Your task to perform on an android device: Add "apple airpods pro" to the cart on newegg, then select checkout. Image 0: 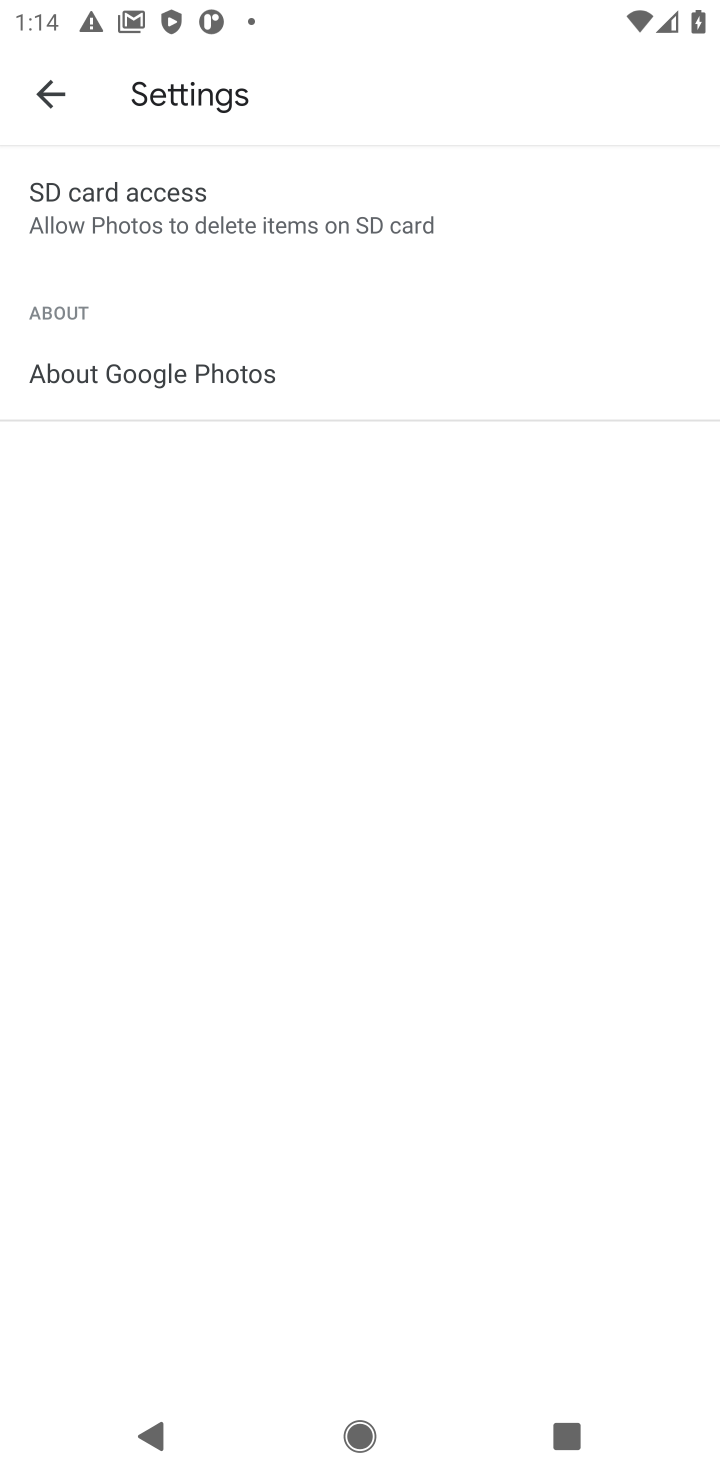
Step 0: press home button
Your task to perform on an android device: Add "apple airpods pro" to the cart on newegg, then select checkout. Image 1: 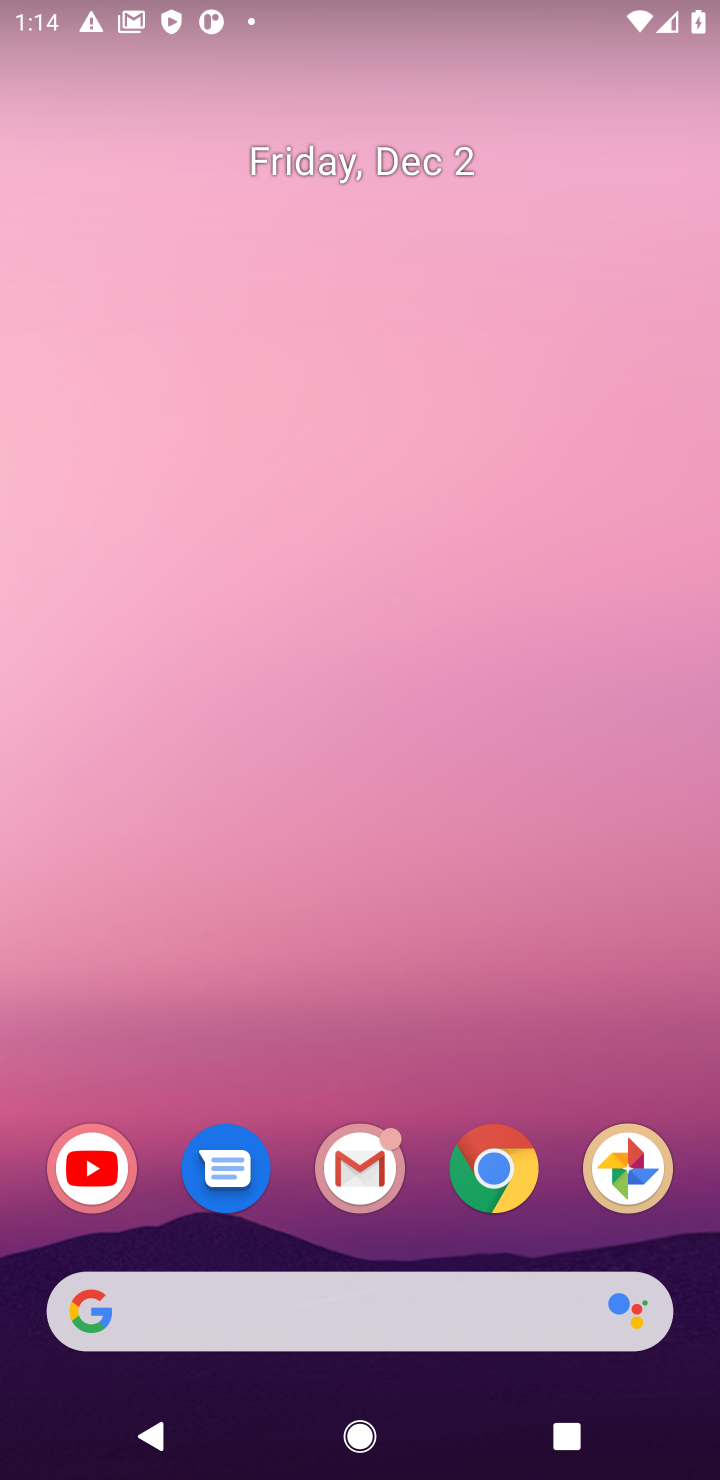
Step 1: click (498, 1182)
Your task to perform on an android device: Add "apple airpods pro" to the cart on newegg, then select checkout. Image 2: 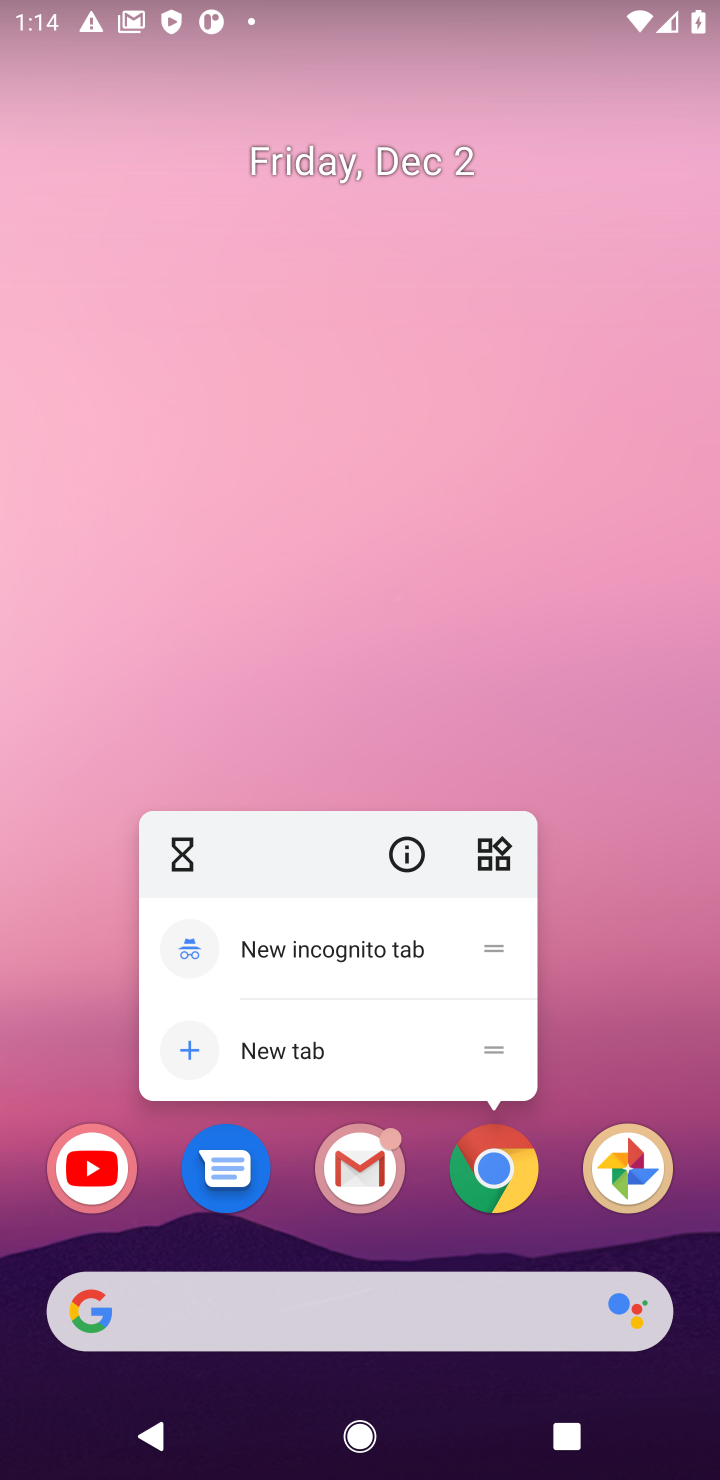
Step 2: click (498, 1182)
Your task to perform on an android device: Add "apple airpods pro" to the cart on newegg, then select checkout. Image 3: 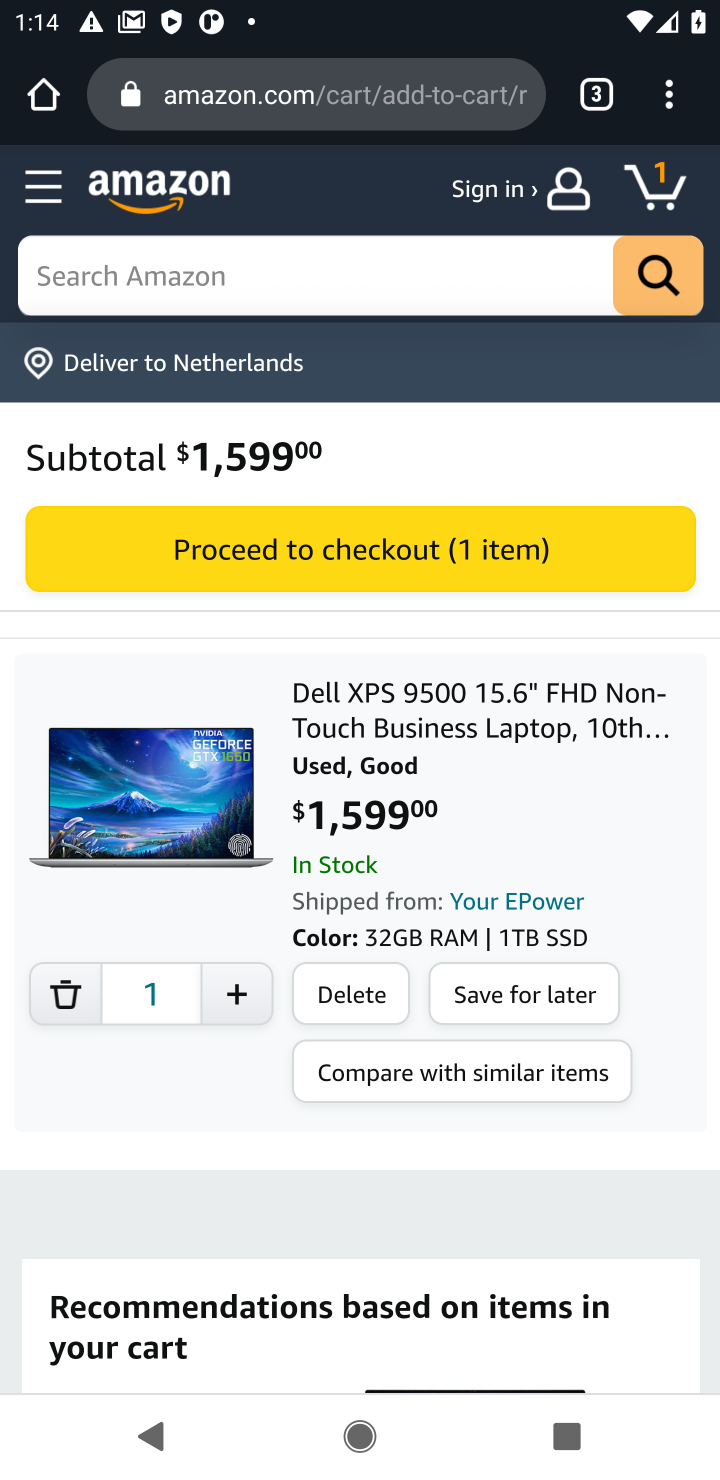
Step 3: click (312, 104)
Your task to perform on an android device: Add "apple airpods pro" to the cart on newegg, then select checkout. Image 4: 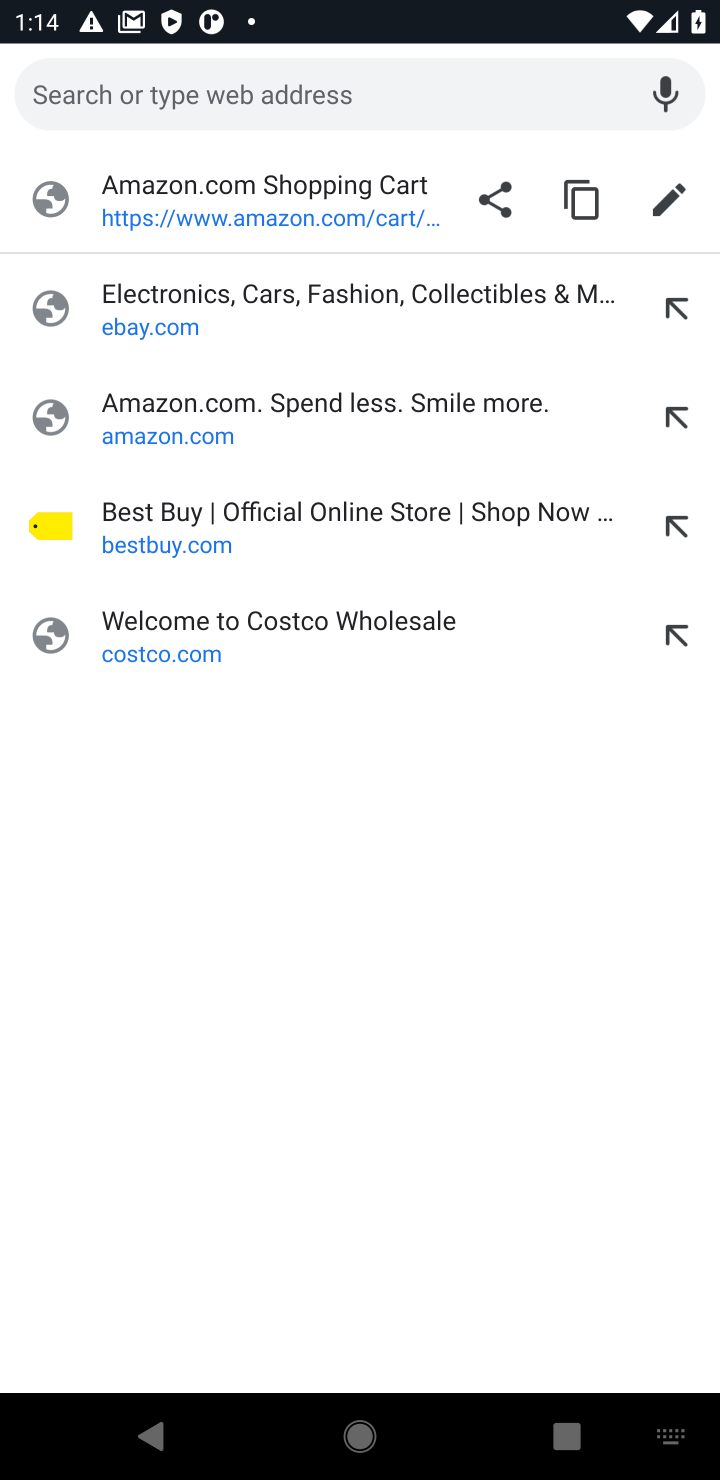
Step 4: type "newegg.com"
Your task to perform on an android device: Add "apple airpods pro" to the cart on newegg, then select checkout. Image 5: 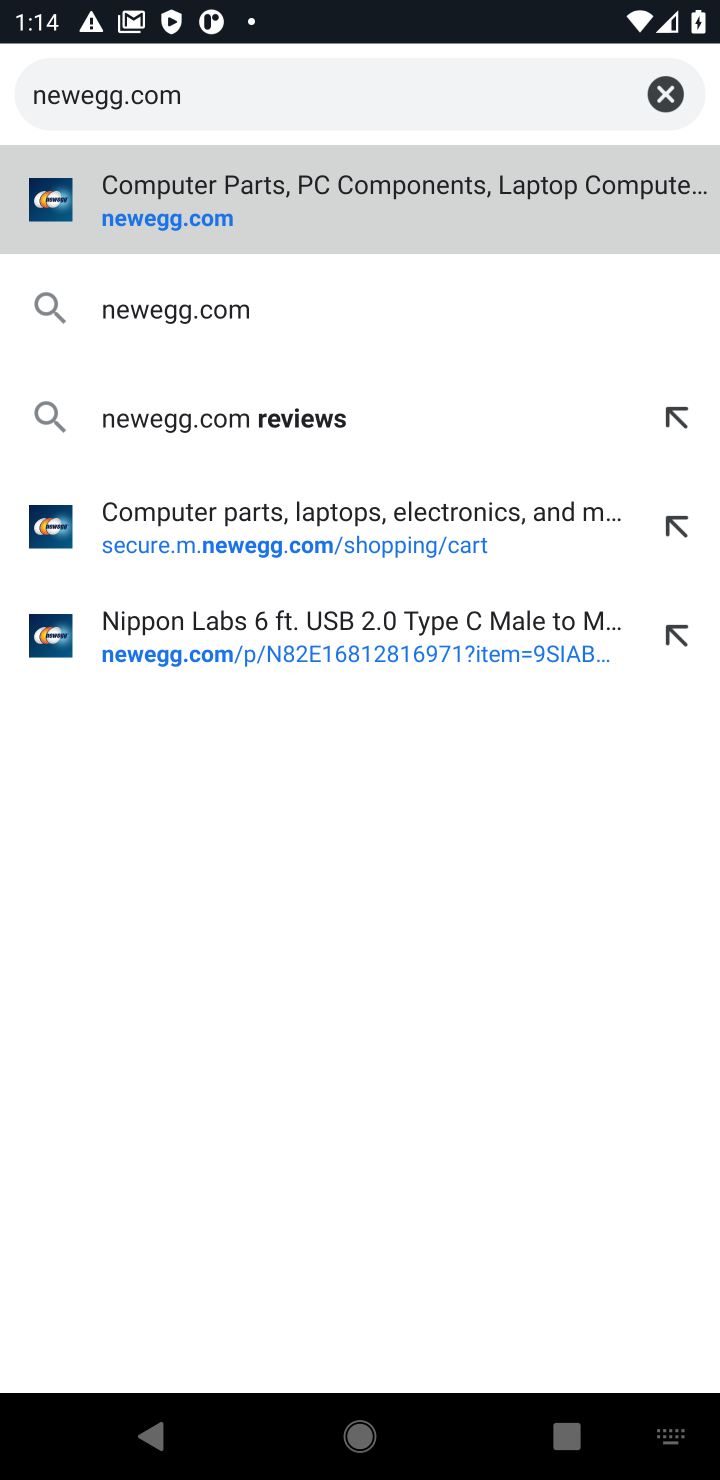
Step 5: click (196, 210)
Your task to perform on an android device: Add "apple airpods pro" to the cart on newegg, then select checkout. Image 6: 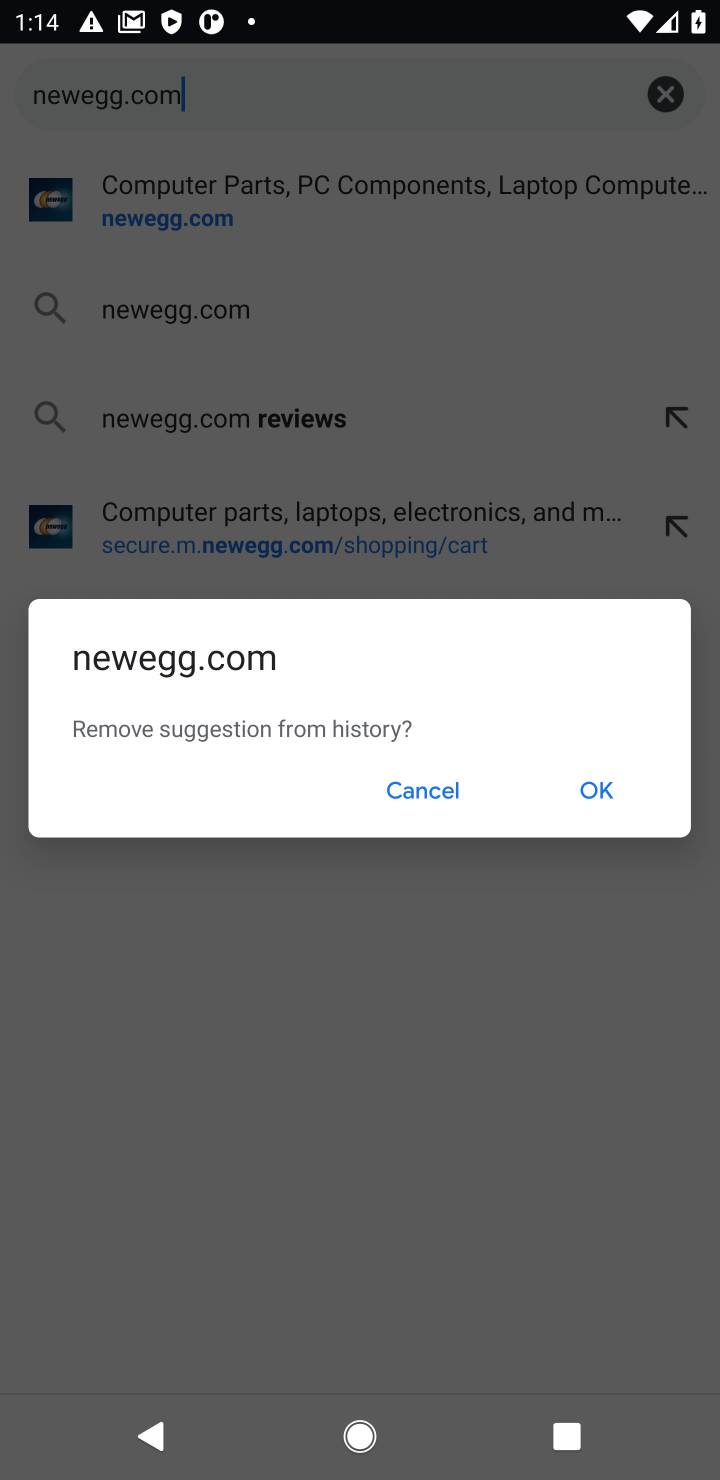
Step 6: click (409, 791)
Your task to perform on an android device: Add "apple airpods pro" to the cart on newegg, then select checkout. Image 7: 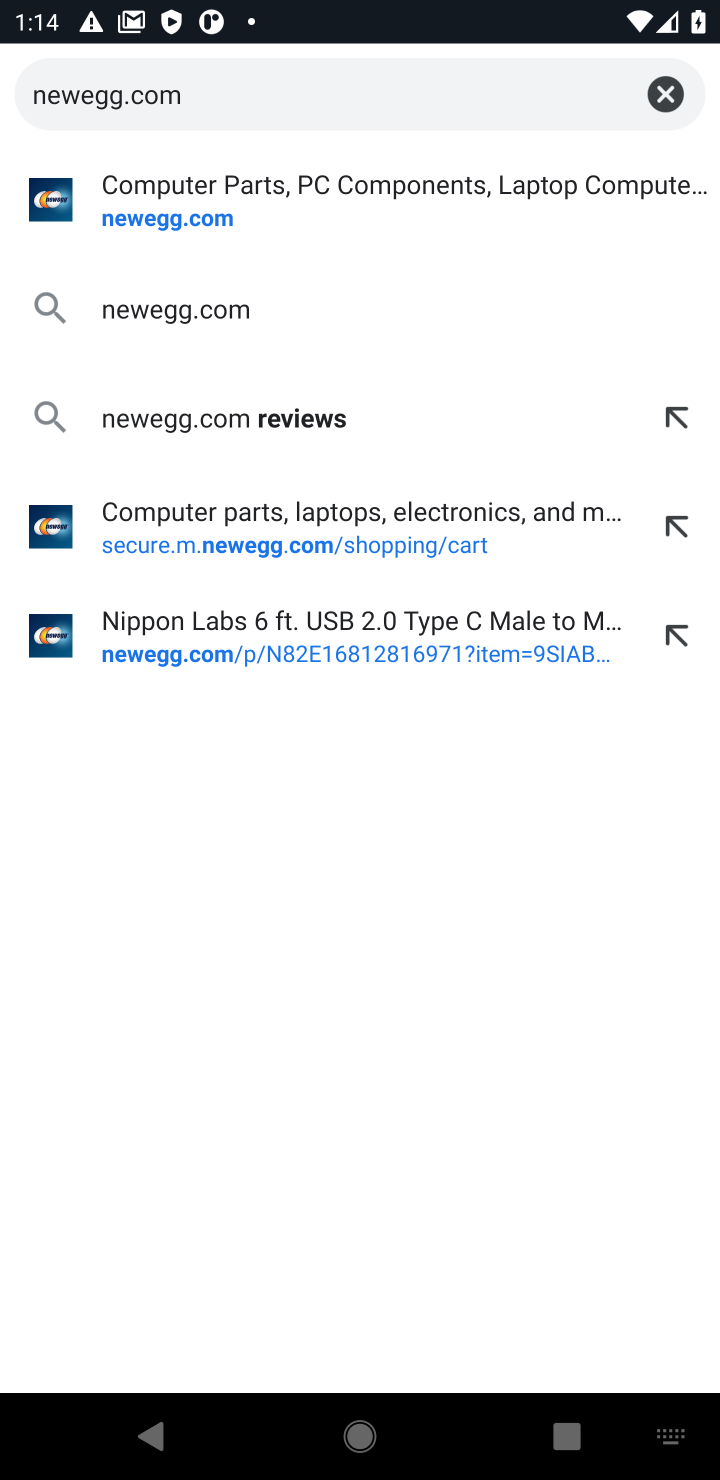
Step 7: click (171, 224)
Your task to perform on an android device: Add "apple airpods pro" to the cart on newegg, then select checkout. Image 8: 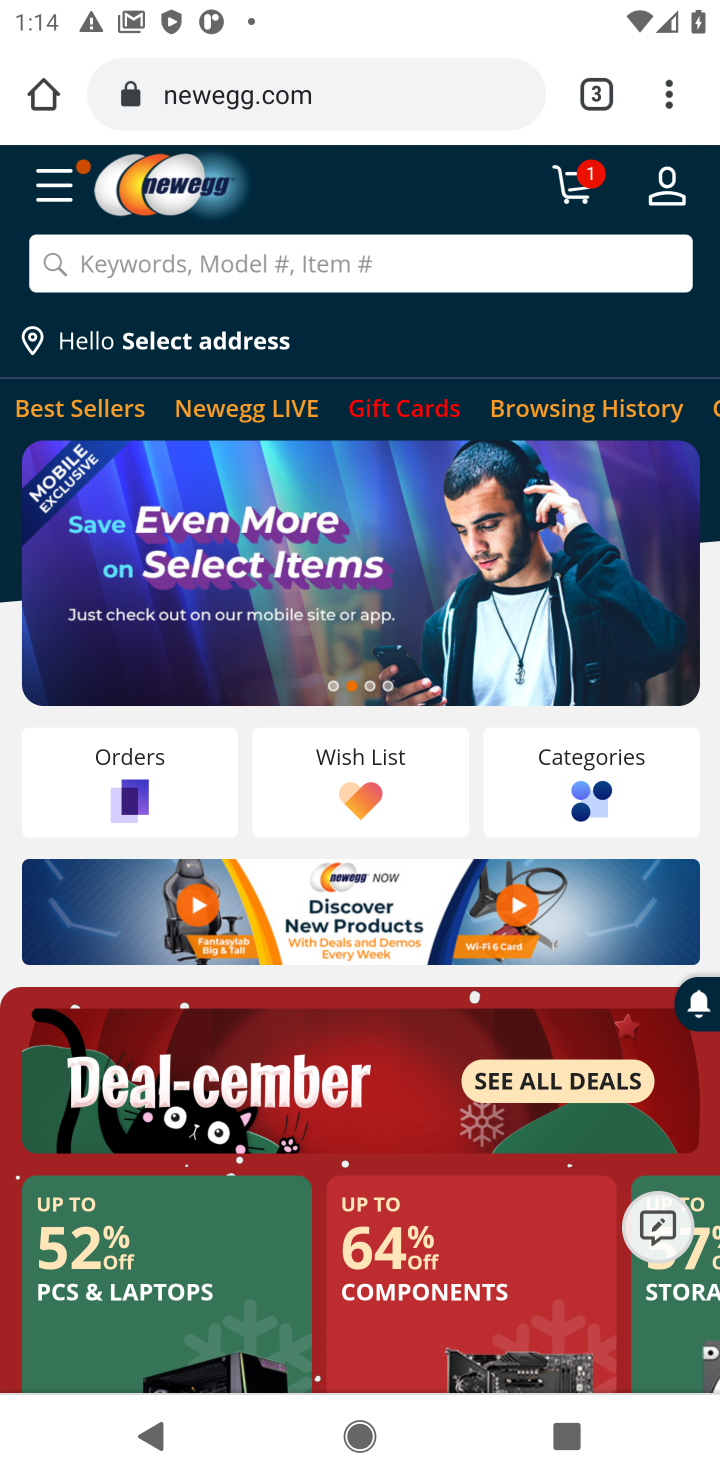
Step 8: click (257, 249)
Your task to perform on an android device: Add "apple airpods pro" to the cart on newegg, then select checkout. Image 9: 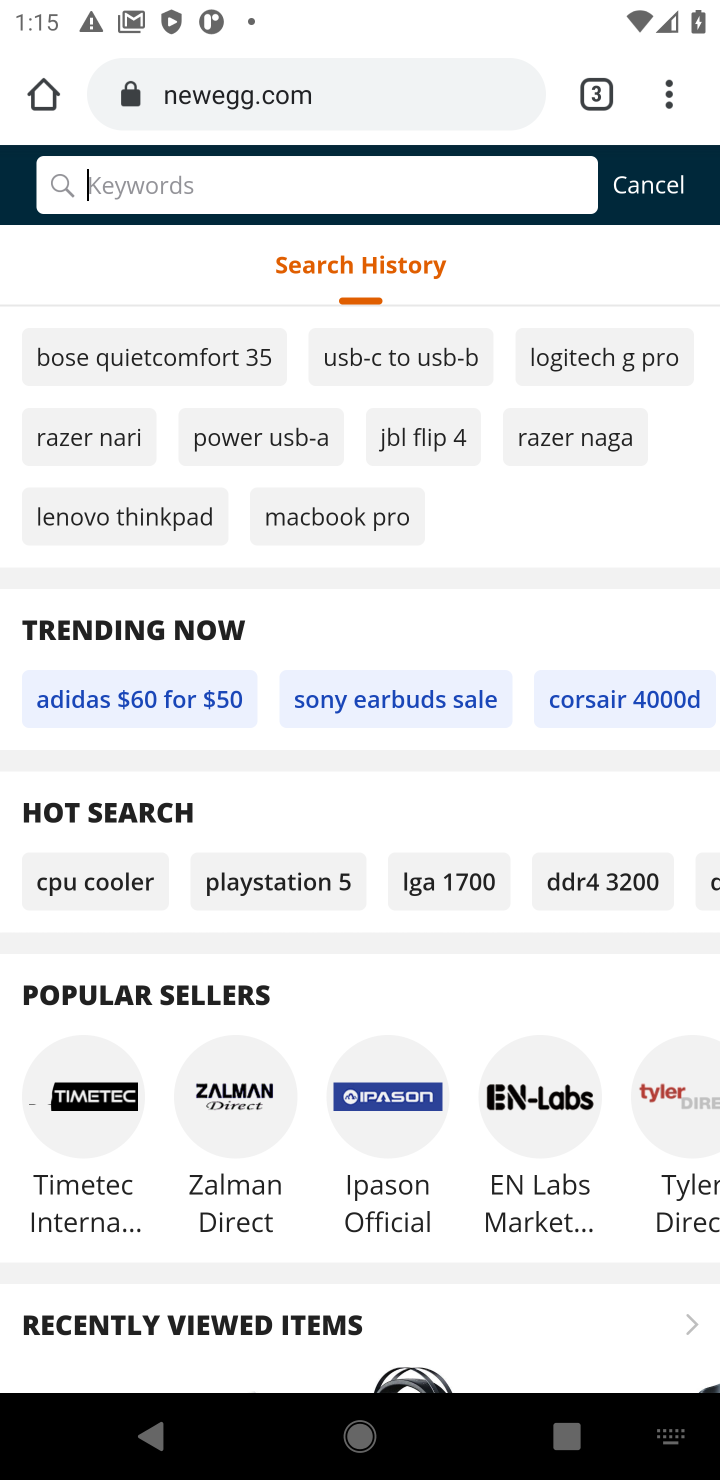
Step 9: type "apple airpods pro"
Your task to perform on an android device: Add "apple airpods pro" to the cart on newegg, then select checkout. Image 10: 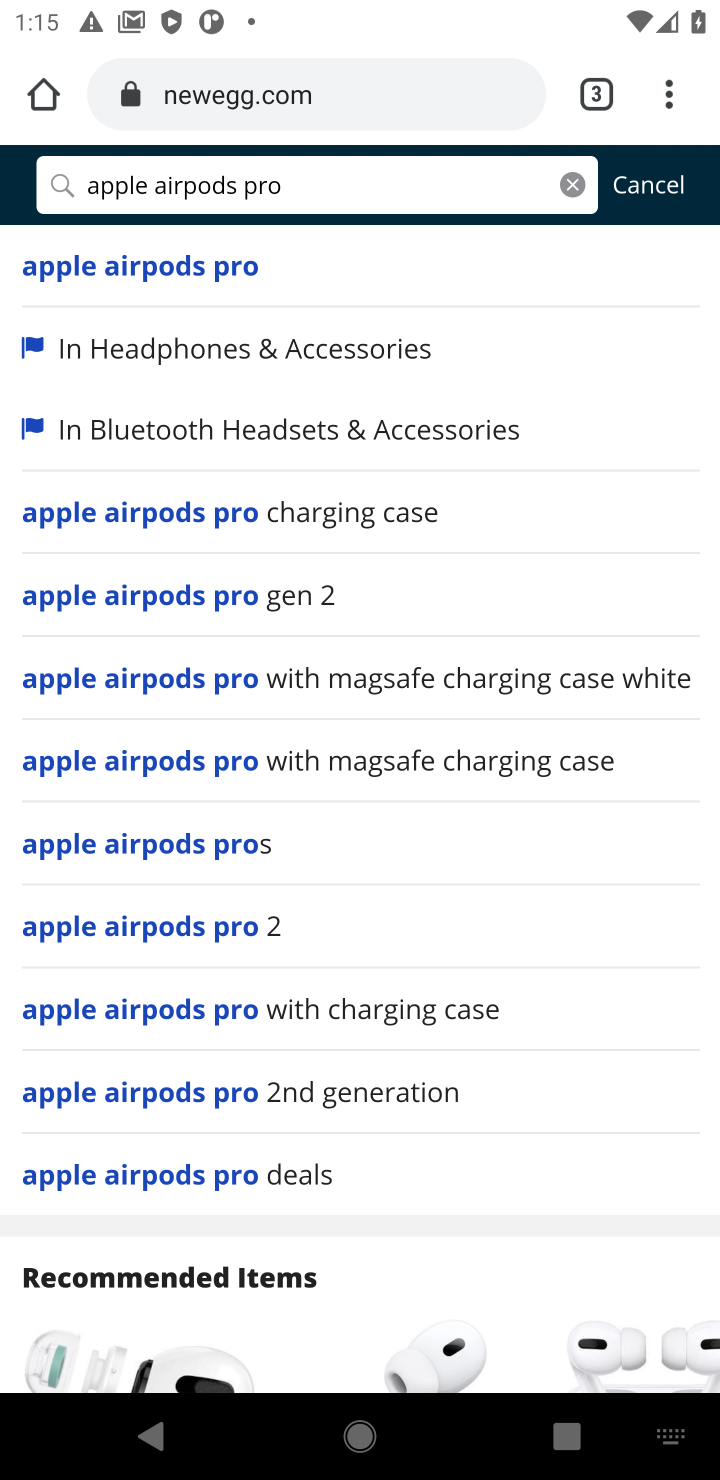
Step 10: click (152, 276)
Your task to perform on an android device: Add "apple airpods pro" to the cart on newegg, then select checkout. Image 11: 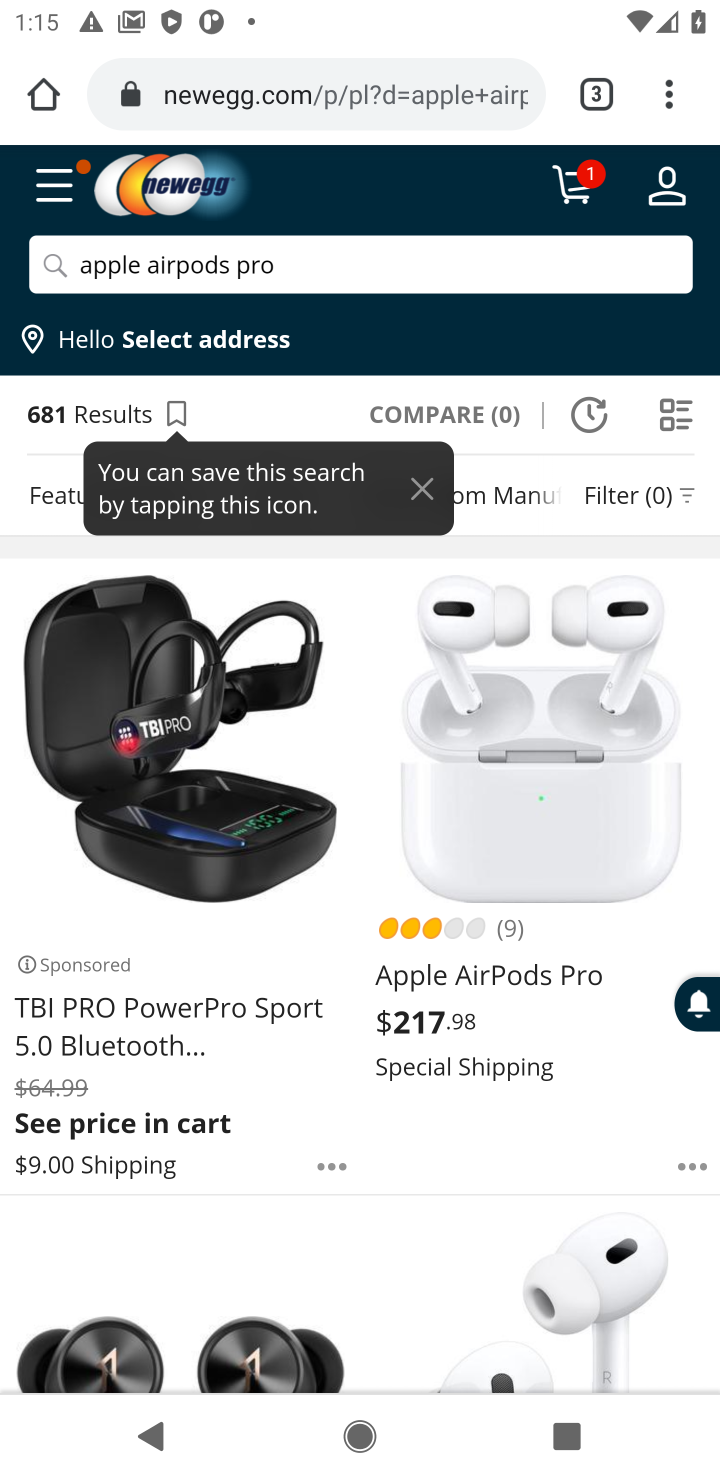
Step 11: click (522, 779)
Your task to perform on an android device: Add "apple airpods pro" to the cart on newegg, then select checkout. Image 12: 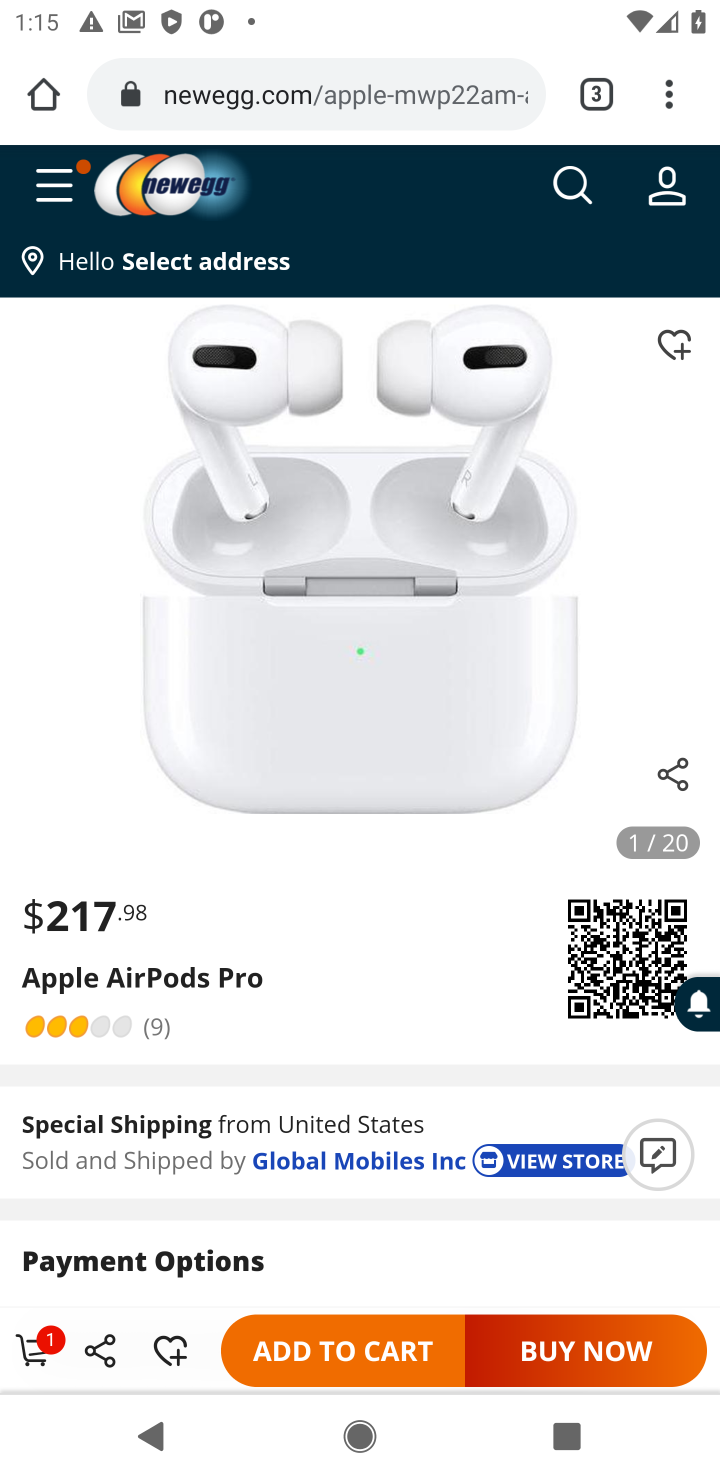
Step 12: click (336, 1347)
Your task to perform on an android device: Add "apple airpods pro" to the cart on newegg, then select checkout. Image 13: 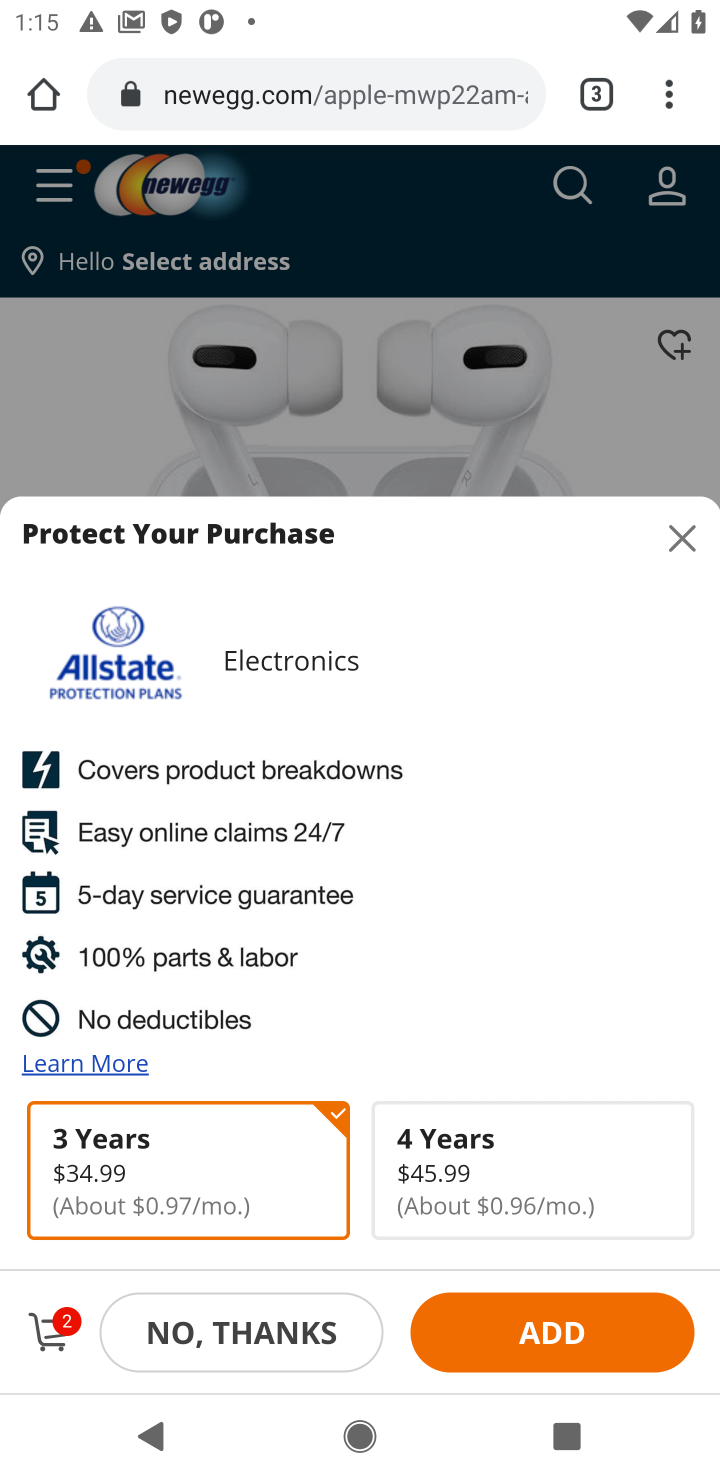
Step 13: click (55, 1336)
Your task to perform on an android device: Add "apple airpods pro" to the cart on newegg, then select checkout. Image 14: 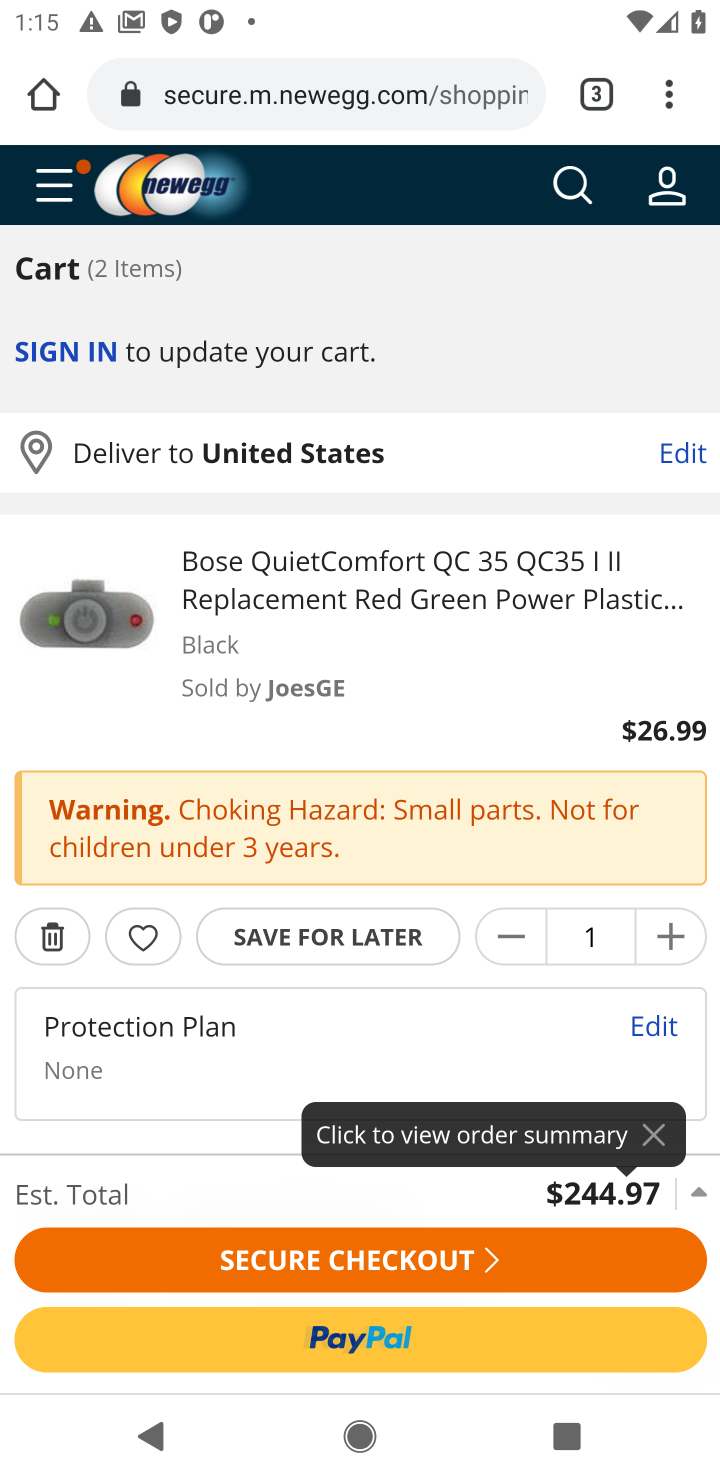
Step 14: click (361, 1261)
Your task to perform on an android device: Add "apple airpods pro" to the cart on newegg, then select checkout. Image 15: 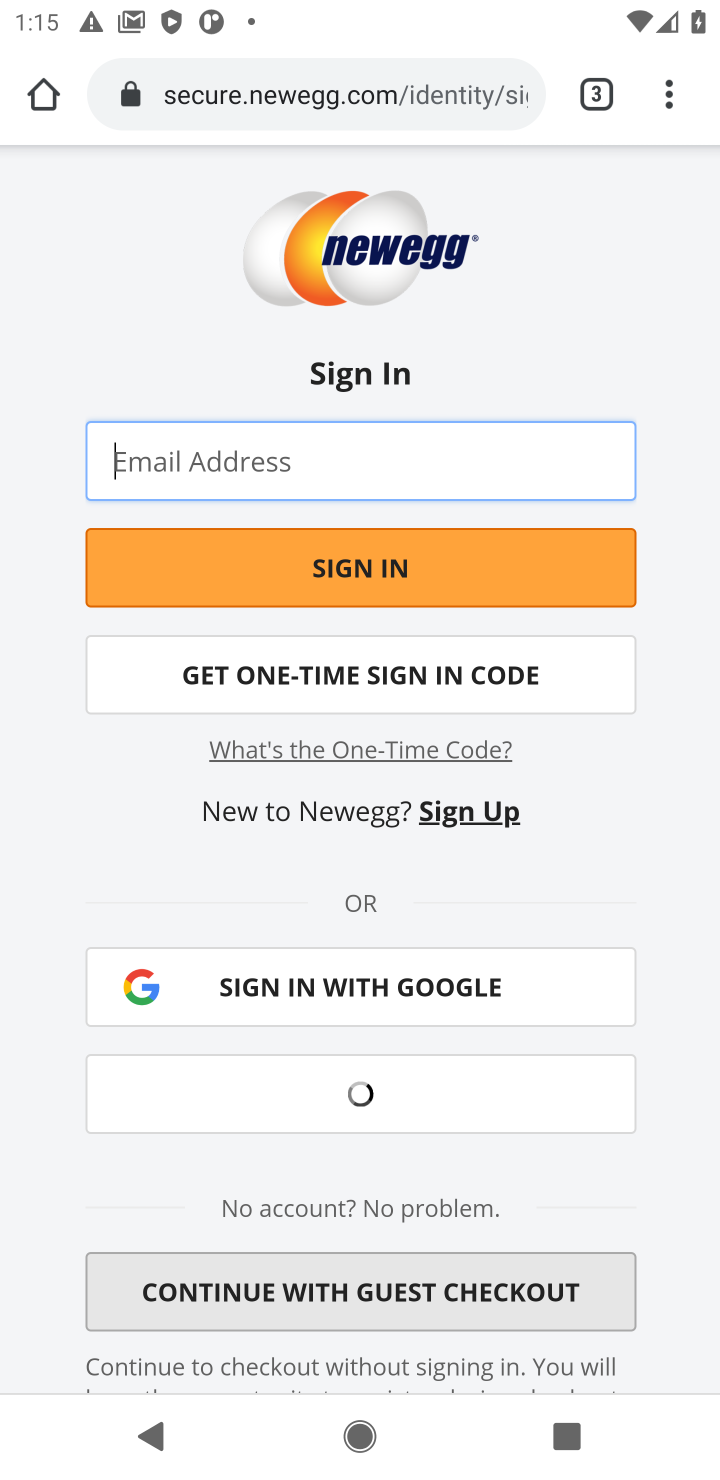
Step 15: task complete